Your task to perform on an android device: What is the recent news? Image 0: 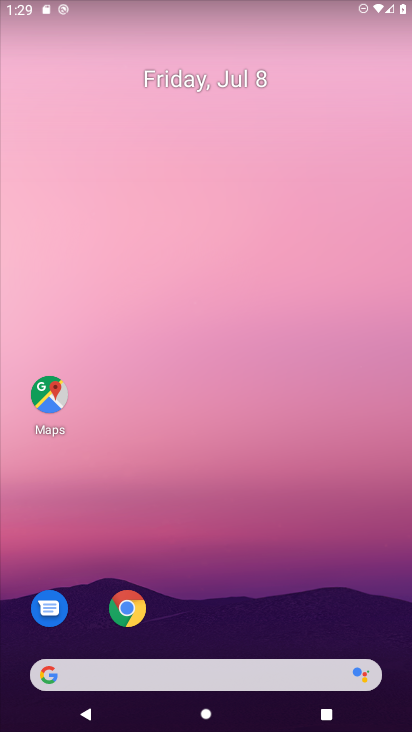
Step 0: drag from (242, 617) to (210, 252)
Your task to perform on an android device: What is the recent news? Image 1: 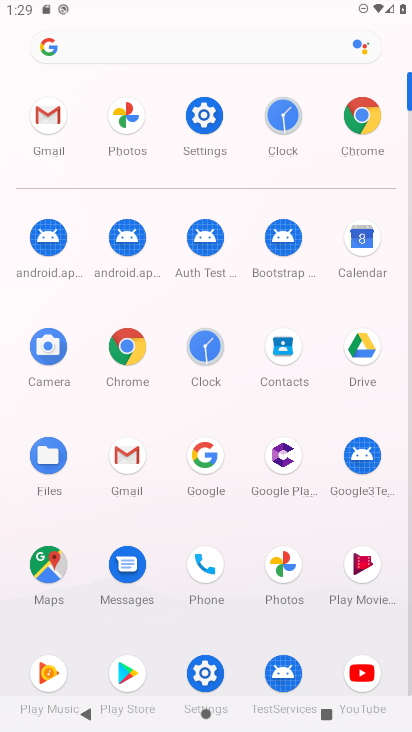
Step 1: click (166, 55)
Your task to perform on an android device: What is the recent news? Image 2: 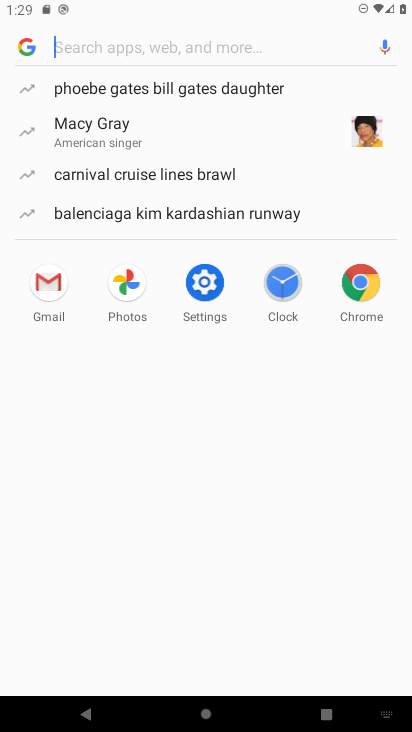
Step 2: type "news"
Your task to perform on an android device: What is the recent news? Image 3: 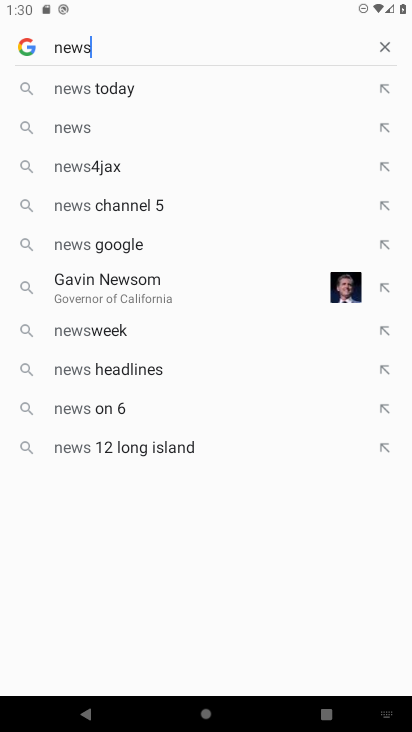
Step 3: click (66, 87)
Your task to perform on an android device: What is the recent news? Image 4: 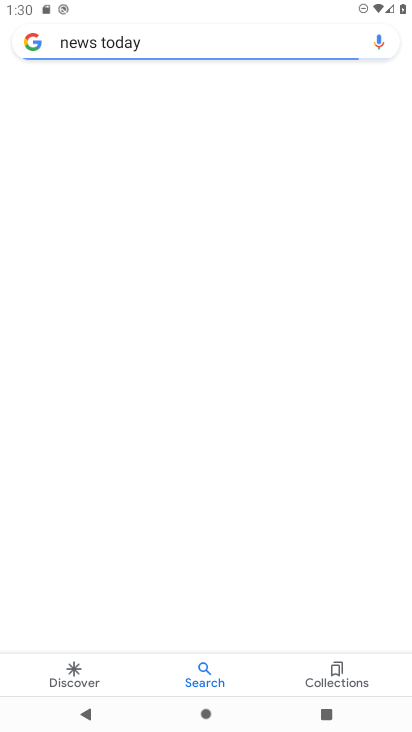
Step 4: task complete